Your task to perform on an android device: Open Reddit.com Image 0: 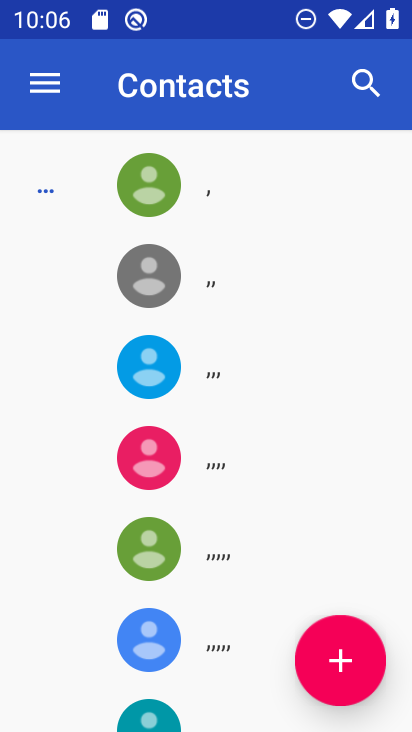
Step 0: press home button
Your task to perform on an android device: Open Reddit.com Image 1: 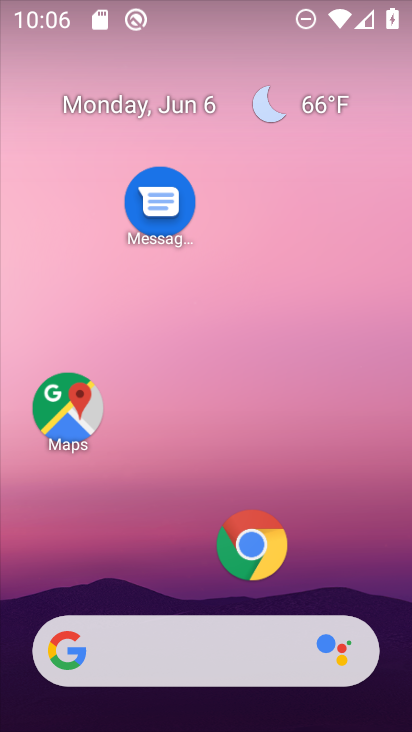
Step 1: drag from (257, 565) to (261, 138)
Your task to perform on an android device: Open Reddit.com Image 2: 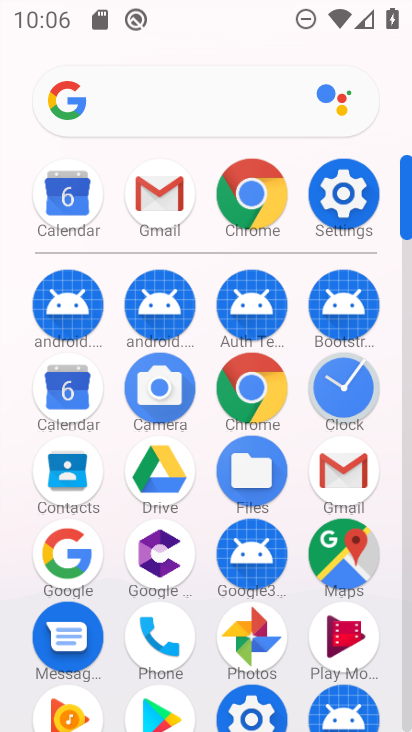
Step 2: click (235, 187)
Your task to perform on an android device: Open Reddit.com Image 3: 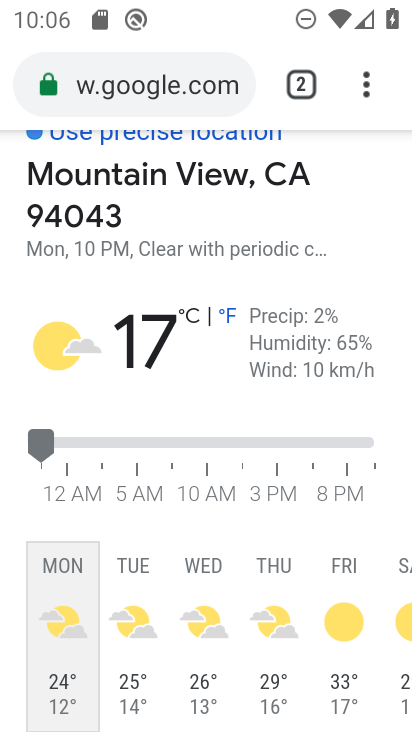
Step 3: click (126, 87)
Your task to perform on an android device: Open Reddit.com Image 4: 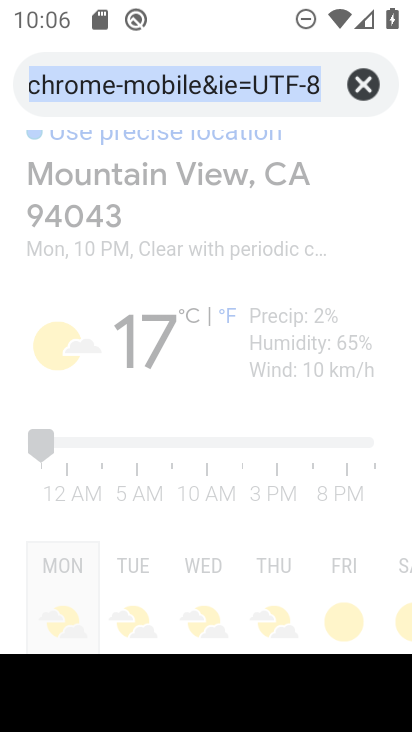
Step 4: type "Reddit.com"
Your task to perform on an android device: Open Reddit.com Image 5: 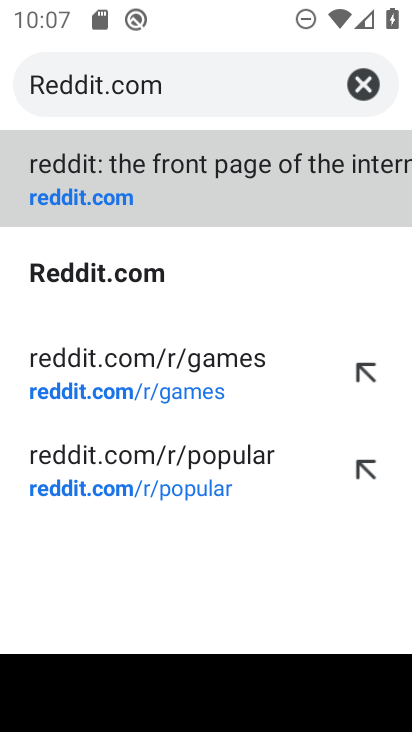
Step 5: click (135, 291)
Your task to perform on an android device: Open Reddit.com Image 6: 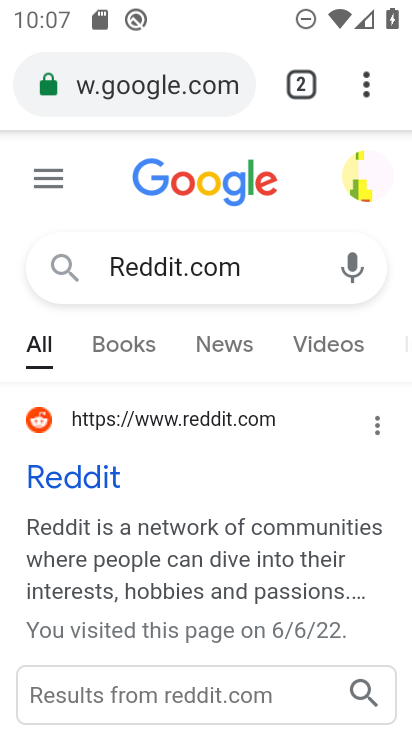
Step 6: task complete